Your task to perform on an android device: Open CNN.com Image 0: 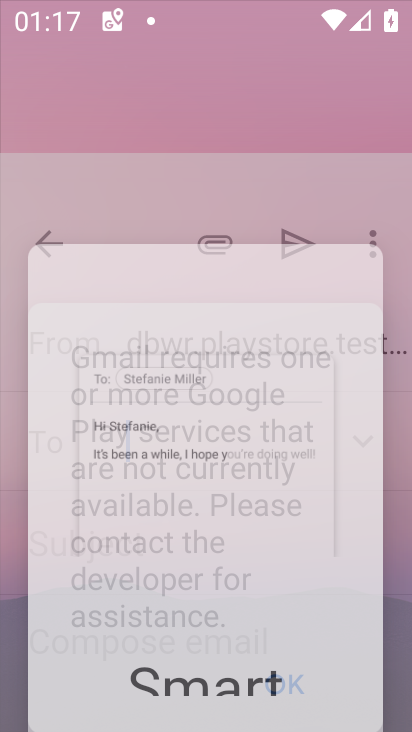
Step 0: drag from (318, 341) to (316, 290)
Your task to perform on an android device: Open CNN.com Image 1: 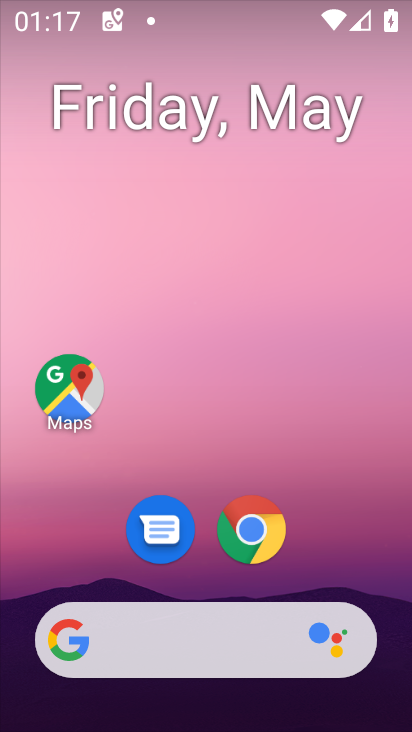
Step 1: click (277, 542)
Your task to perform on an android device: Open CNN.com Image 2: 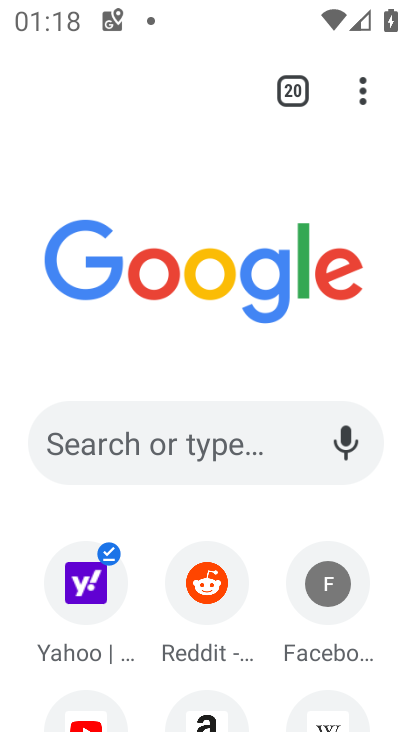
Step 2: click (153, 436)
Your task to perform on an android device: Open CNN.com Image 3: 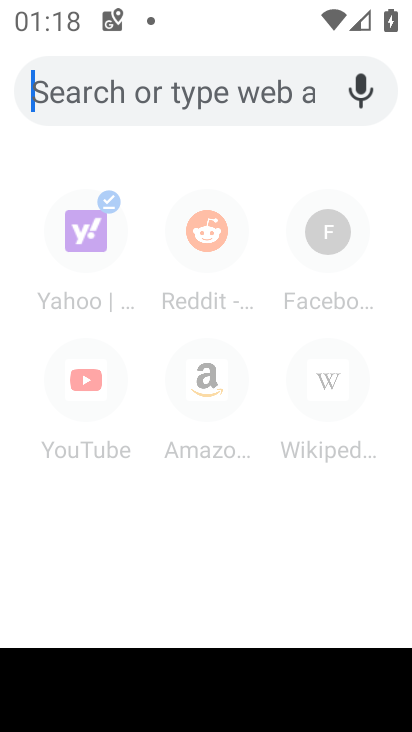
Step 3: type "CNN.com"
Your task to perform on an android device: Open CNN.com Image 4: 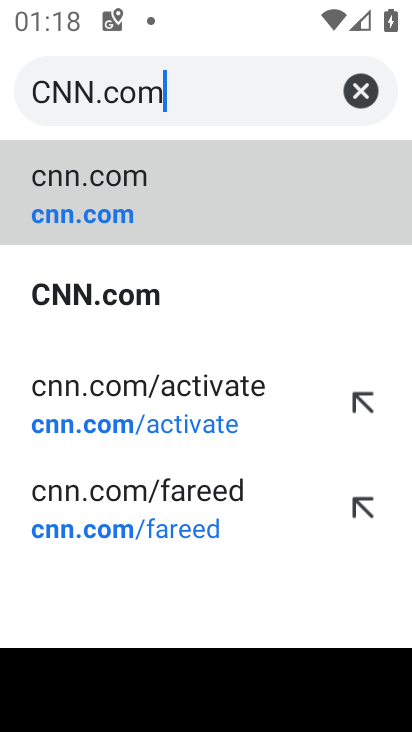
Step 4: click (108, 211)
Your task to perform on an android device: Open CNN.com Image 5: 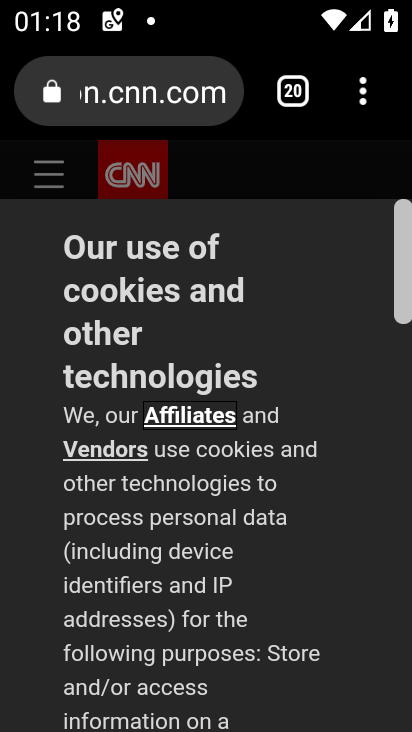
Step 5: task complete